Your task to perform on an android device: Open calendar and show me the third week of next month Image 0: 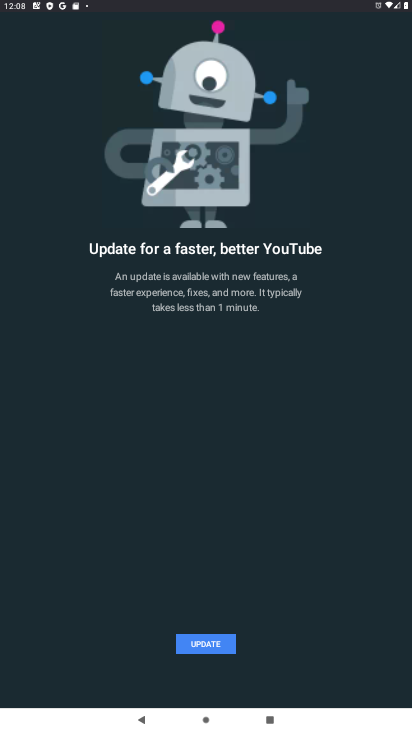
Step 0: press home button
Your task to perform on an android device: Open calendar and show me the third week of next month Image 1: 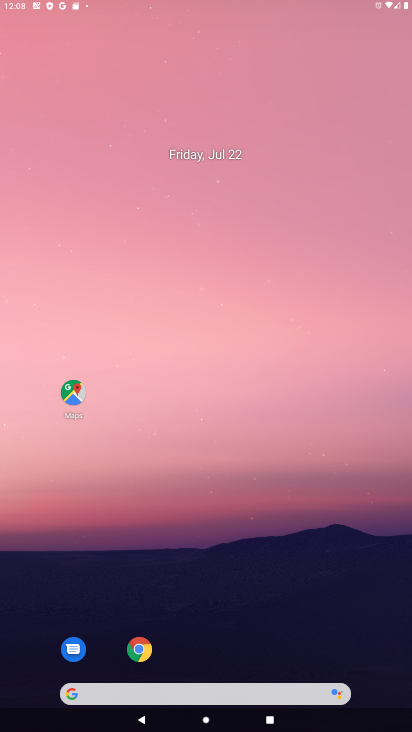
Step 1: drag from (313, 650) to (131, 169)
Your task to perform on an android device: Open calendar and show me the third week of next month Image 2: 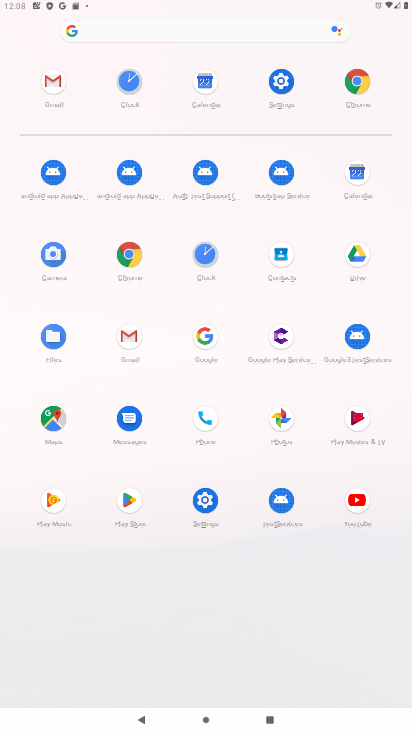
Step 2: click (365, 167)
Your task to perform on an android device: Open calendar and show me the third week of next month Image 3: 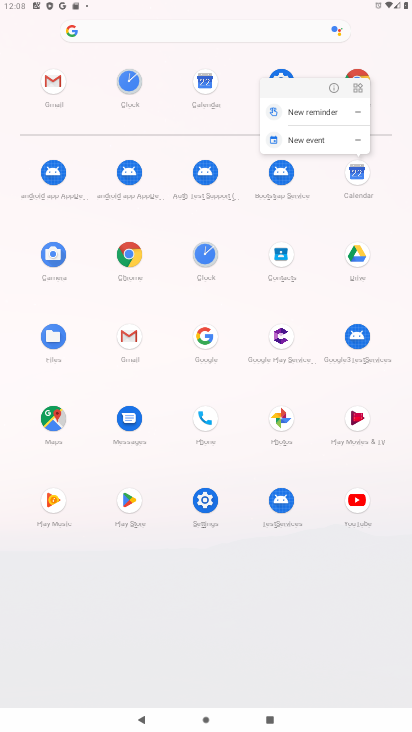
Step 3: click (352, 170)
Your task to perform on an android device: Open calendar and show me the third week of next month Image 4: 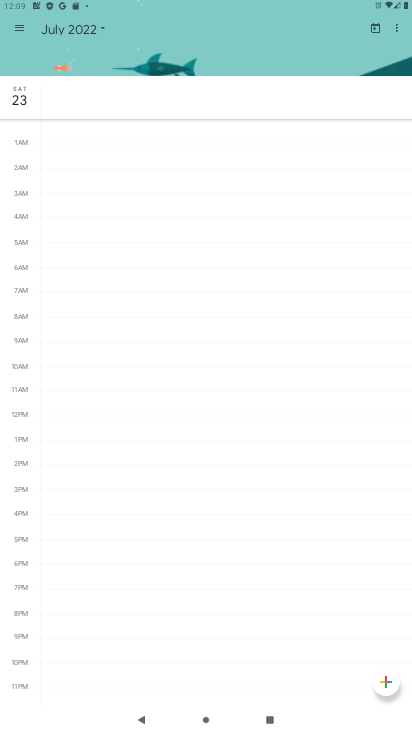
Step 4: click (39, 33)
Your task to perform on an android device: Open calendar and show me the third week of next month Image 5: 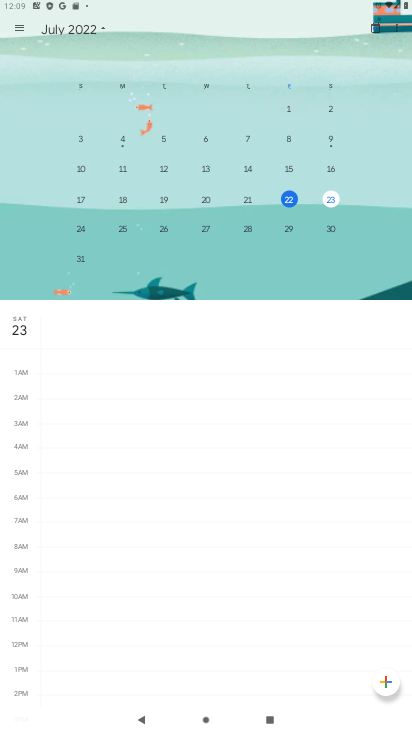
Step 5: drag from (336, 226) to (50, 177)
Your task to perform on an android device: Open calendar and show me the third week of next month Image 6: 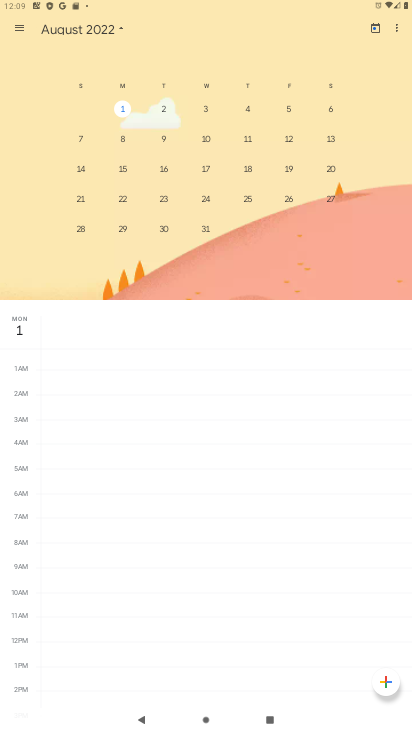
Step 6: click (202, 166)
Your task to perform on an android device: Open calendar and show me the third week of next month Image 7: 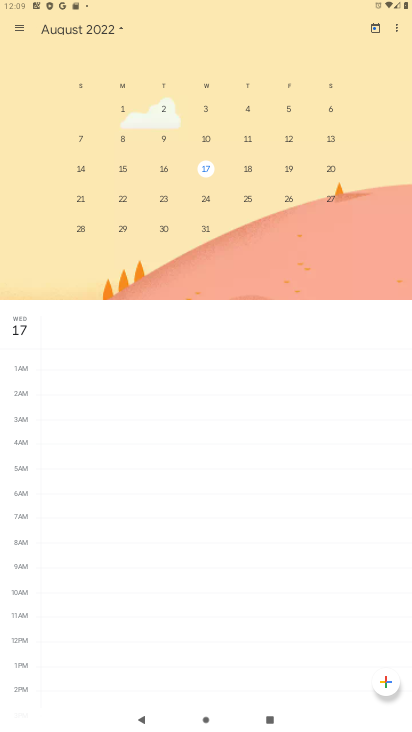
Step 7: click (14, 25)
Your task to perform on an android device: Open calendar and show me the third week of next month Image 8: 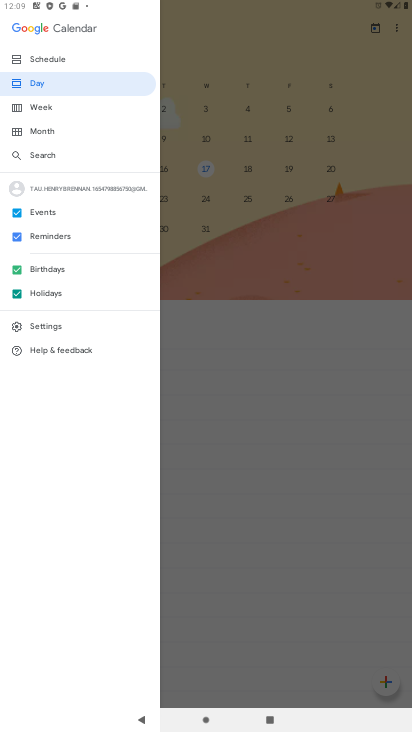
Step 8: click (52, 109)
Your task to perform on an android device: Open calendar and show me the third week of next month Image 9: 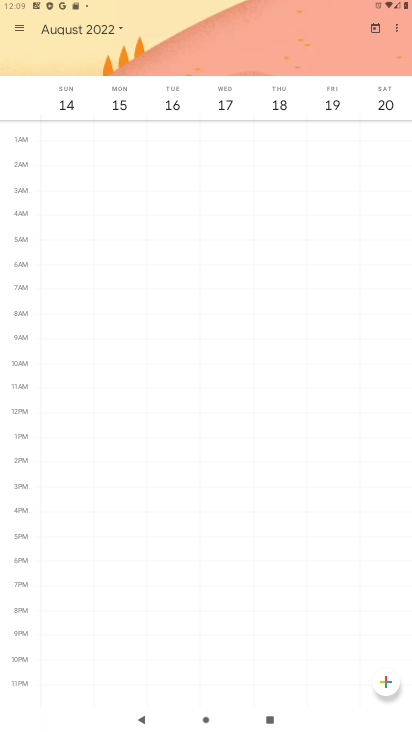
Step 9: task complete